Your task to perform on an android device: turn pop-ups off in chrome Image 0: 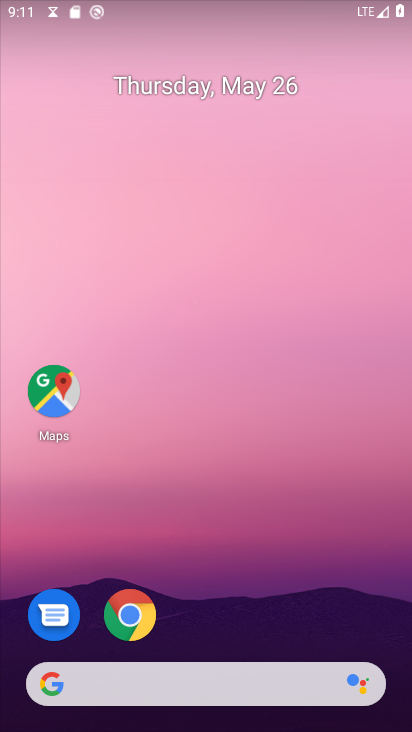
Step 0: click (141, 607)
Your task to perform on an android device: turn pop-ups off in chrome Image 1: 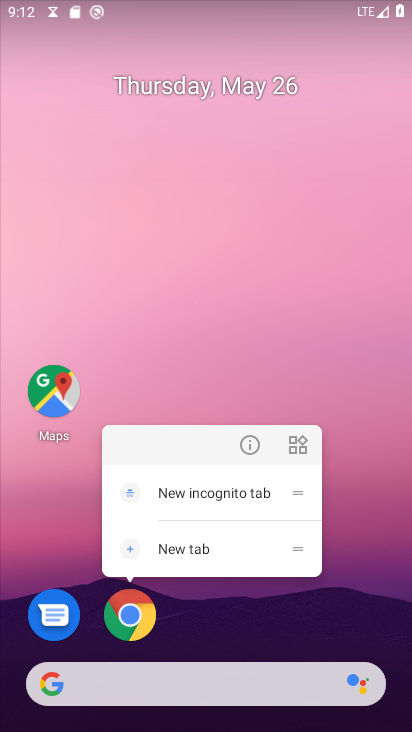
Step 1: click (132, 607)
Your task to perform on an android device: turn pop-ups off in chrome Image 2: 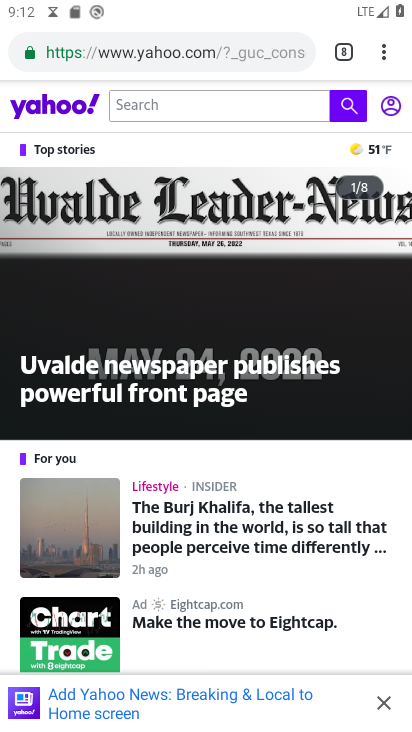
Step 2: click (386, 48)
Your task to perform on an android device: turn pop-ups off in chrome Image 3: 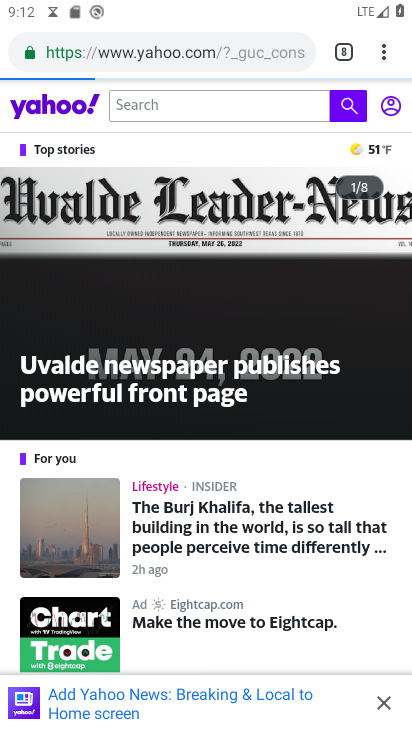
Step 3: click (395, 40)
Your task to perform on an android device: turn pop-ups off in chrome Image 4: 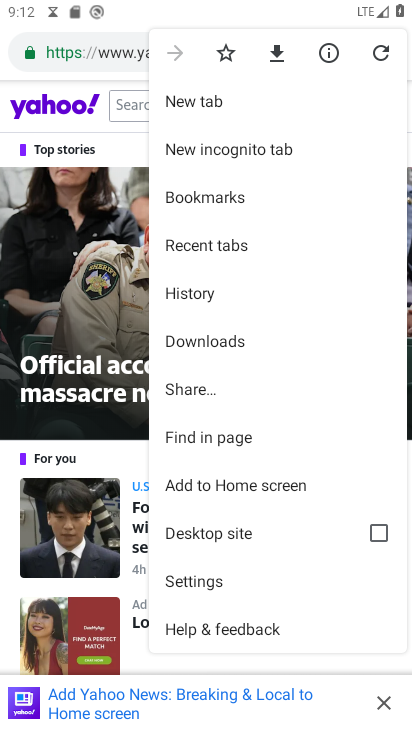
Step 4: click (223, 577)
Your task to perform on an android device: turn pop-ups off in chrome Image 5: 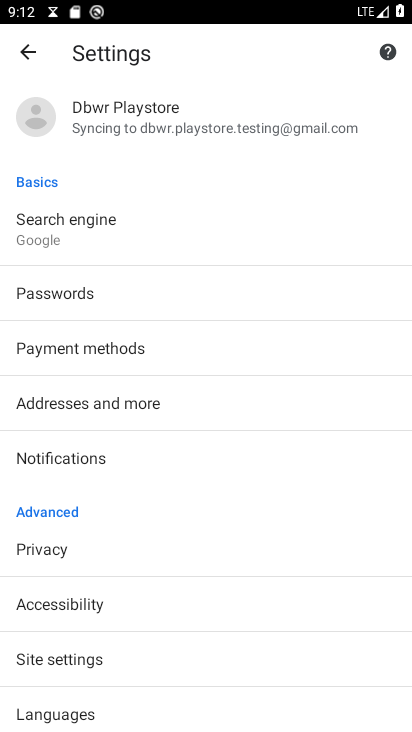
Step 5: drag from (196, 609) to (266, 337)
Your task to perform on an android device: turn pop-ups off in chrome Image 6: 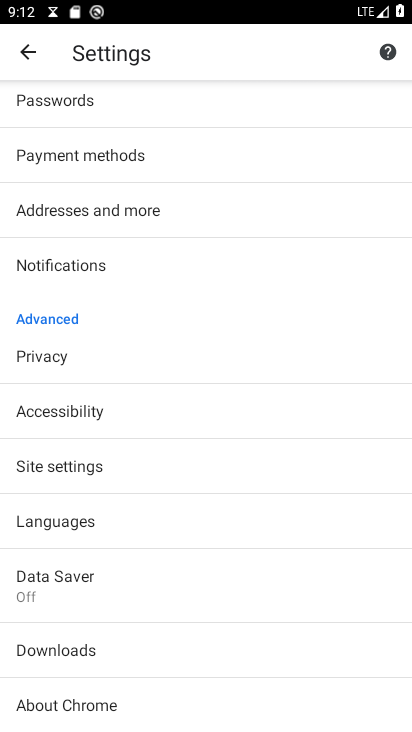
Step 6: click (119, 457)
Your task to perform on an android device: turn pop-ups off in chrome Image 7: 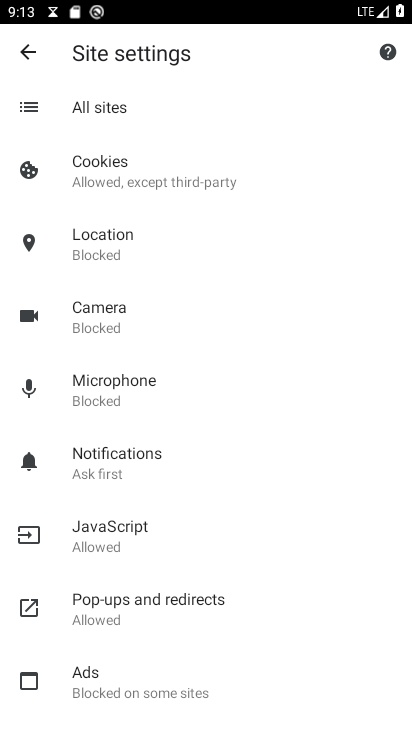
Step 7: click (120, 598)
Your task to perform on an android device: turn pop-ups off in chrome Image 8: 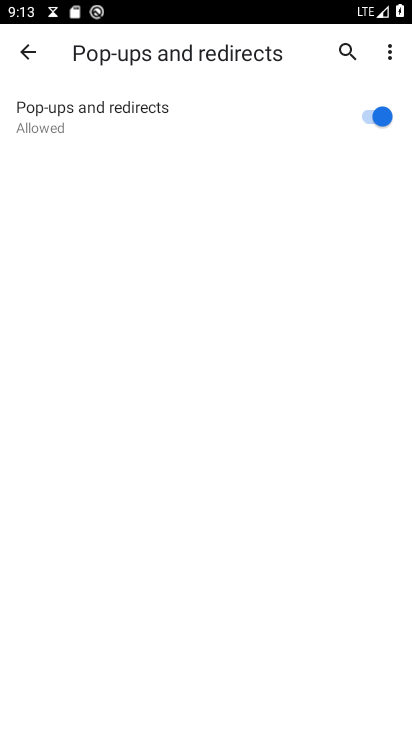
Step 8: click (365, 116)
Your task to perform on an android device: turn pop-ups off in chrome Image 9: 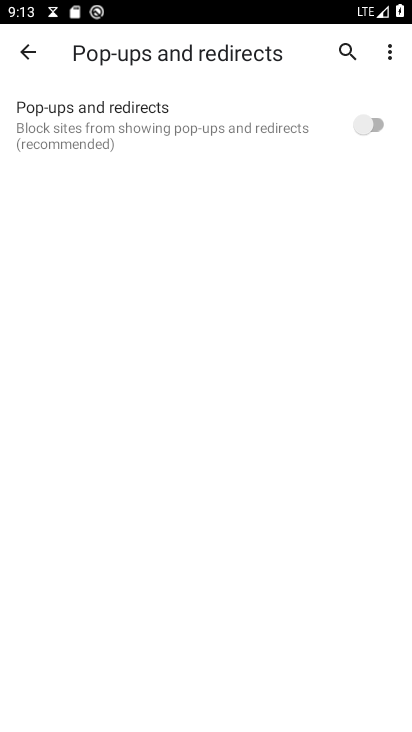
Step 9: task complete